Your task to perform on an android device: check android version Image 0: 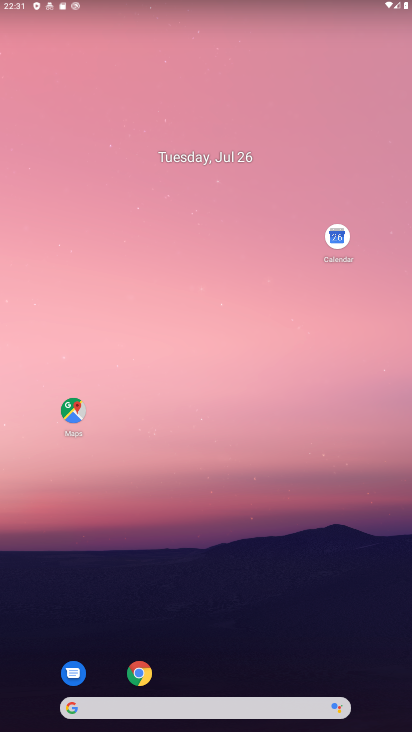
Step 0: drag from (208, 511) to (260, 156)
Your task to perform on an android device: check android version Image 1: 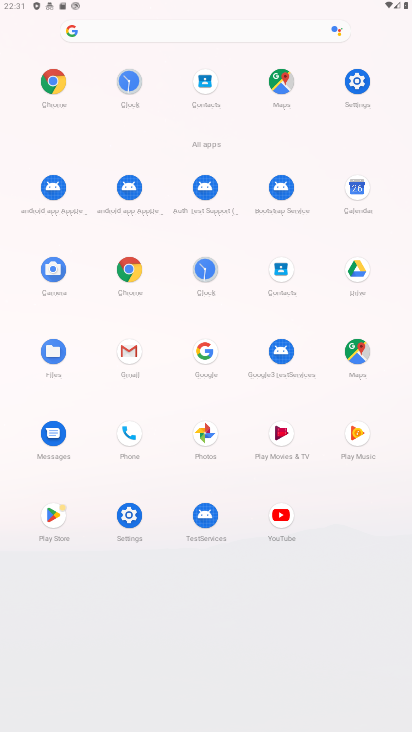
Step 1: drag from (241, 464) to (172, 10)
Your task to perform on an android device: check android version Image 2: 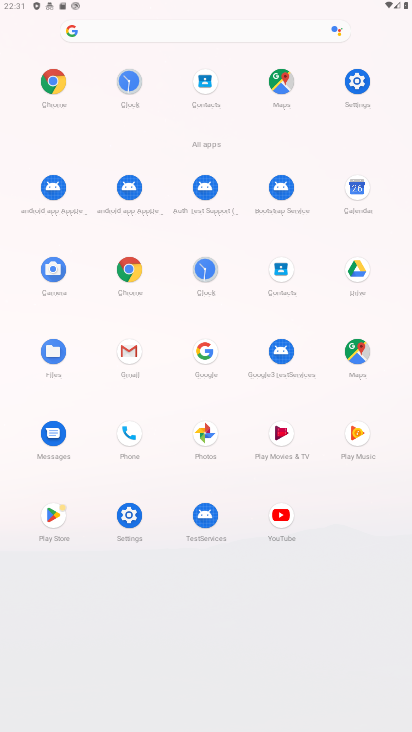
Step 2: drag from (219, 153) to (181, 9)
Your task to perform on an android device: check android version Image 3: 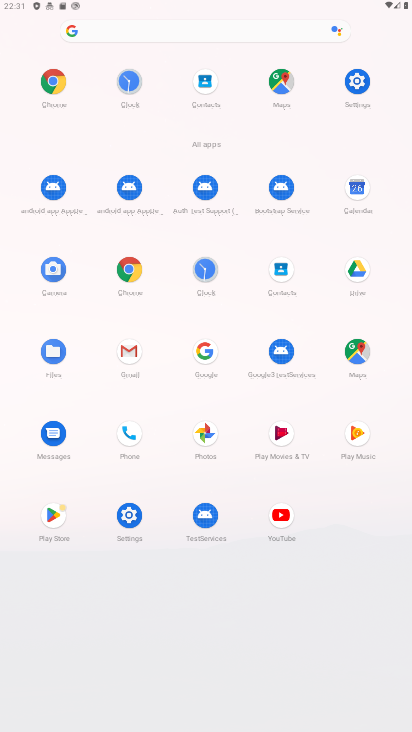
Step 3: click (357, 74)
Your task to perform on an android device: check android version Image 4: 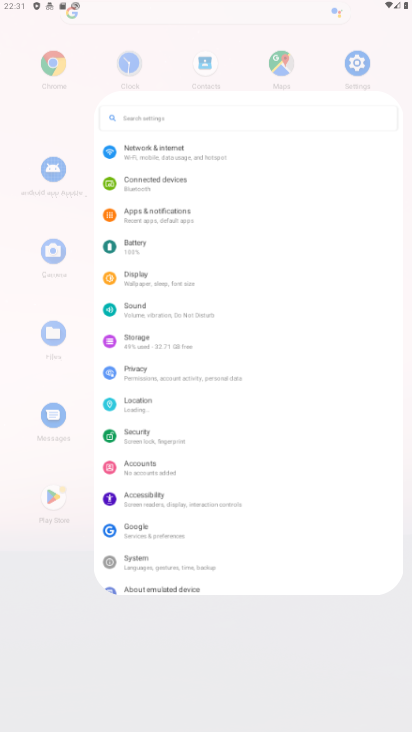
Step 4: click (362, 72)
Your task to perform on an android device: check android version Image 5: 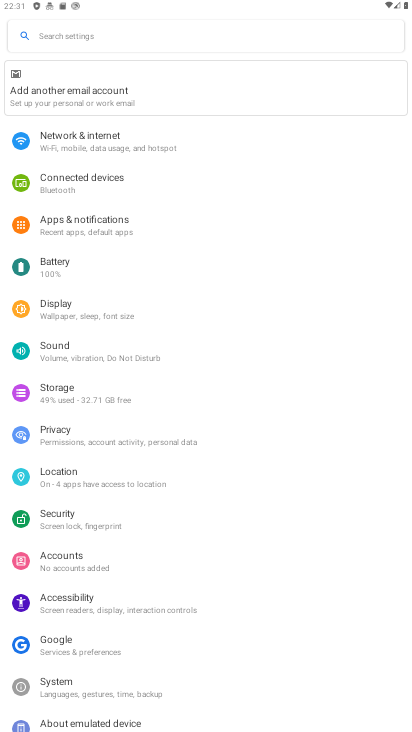
Step 5: drag from (91, 267) to (35, 1)
Your task to perform on an android device: check android version Image 6: 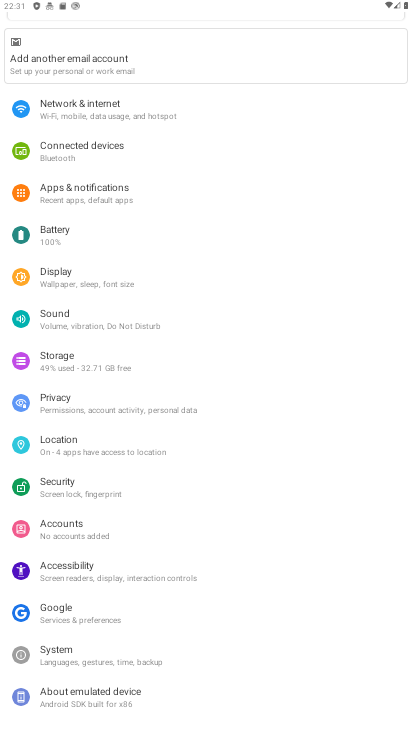
Step 6: drag from (101, 454) to (127, 67)
Your task to perform on an android device: check android version Image 7: 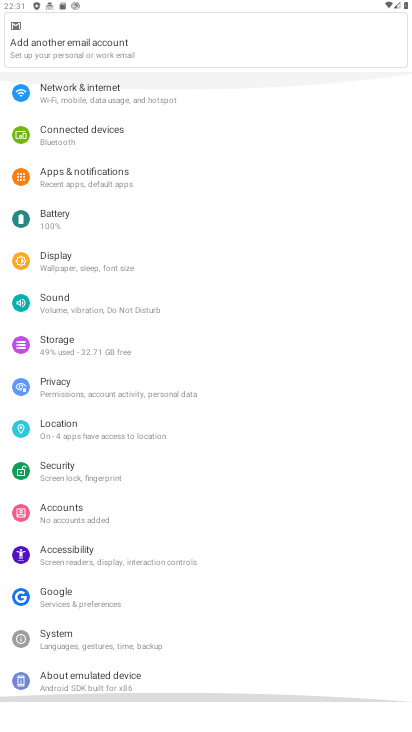
Step 7: drag from (99, 302) to (58, 25)
Your task to perform on an android device: check android version Image 8: 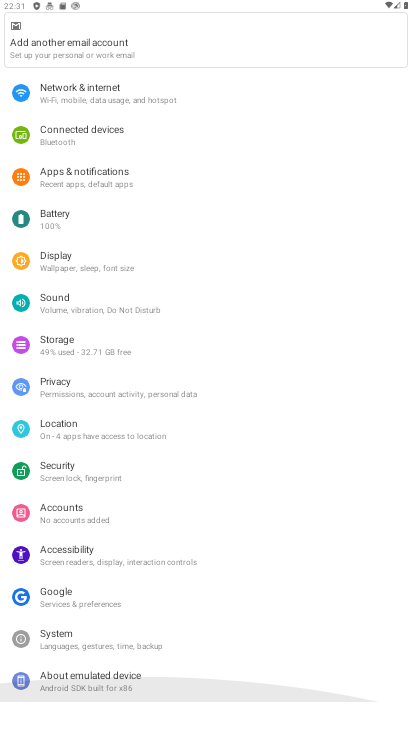
Step 8: drag from (73, 281) to (48, 132)
Your task to perform on an android device: check android version Image 9: 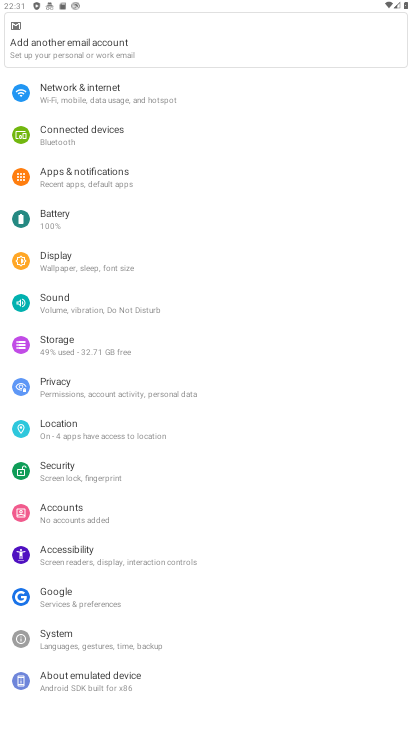
Step 9: click (77, 680)
Your task to perform on an android device: check android version Image 10: 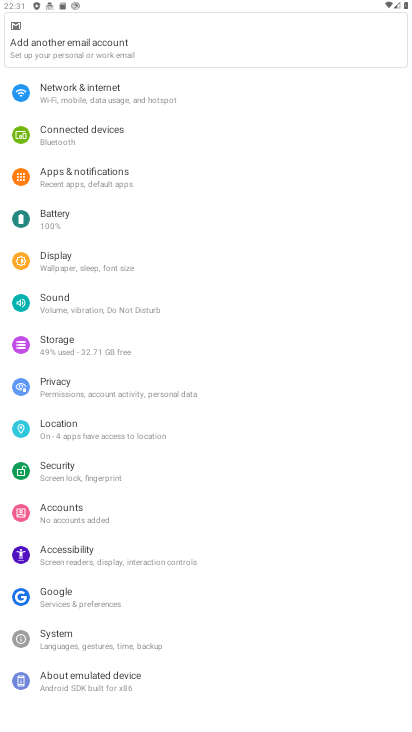
Step 10: drag from (92, 566) to (37, 63)
Your task to perform on an android device: check android version Image 11: 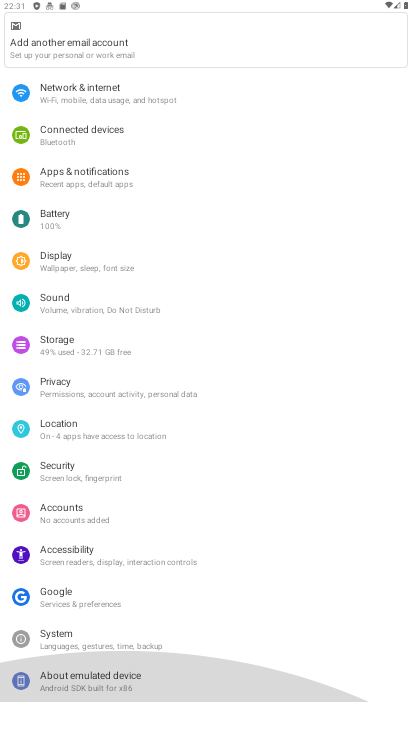
Step 11: drag from (135, 421) to (42, 25)
Your task to perform on an android device: check android version Image 12: 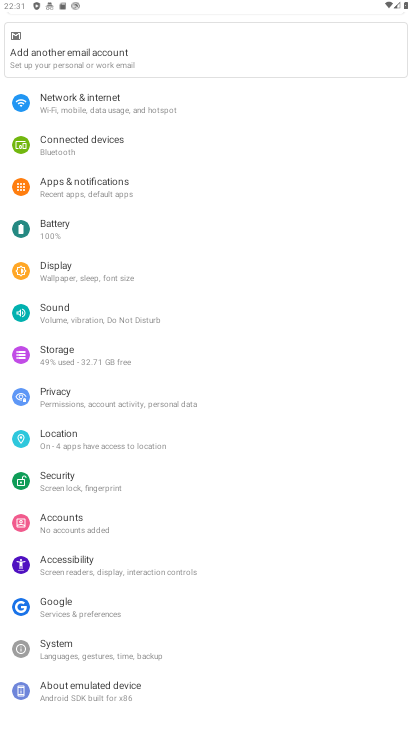
Step 12: click (71, 688)
Your task to perform on an android device: check android version Image 13: 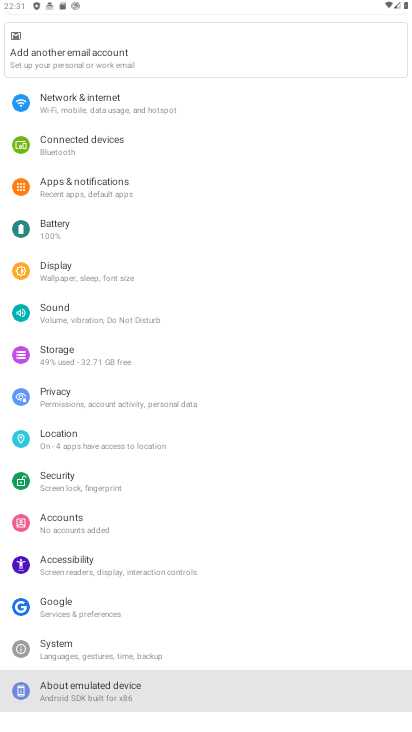
Step 13: click (84, 693)
Your task to perform on an android device: check android version Image 14: 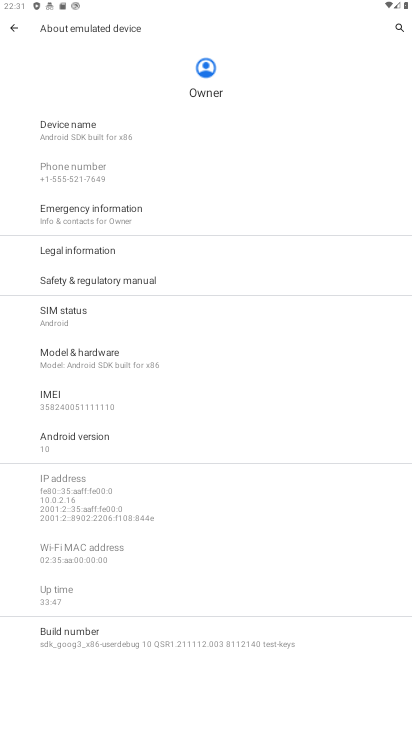
Step 14: click (107, 699)
Your task to perform on an android device: check android version Image 15: 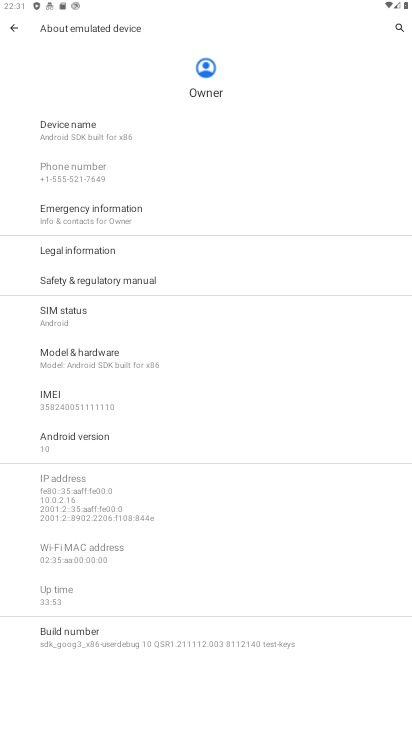
Step 15: drag from (86, 390) to (111, 539)
Your task to perform on an android device: check android version Image 16: 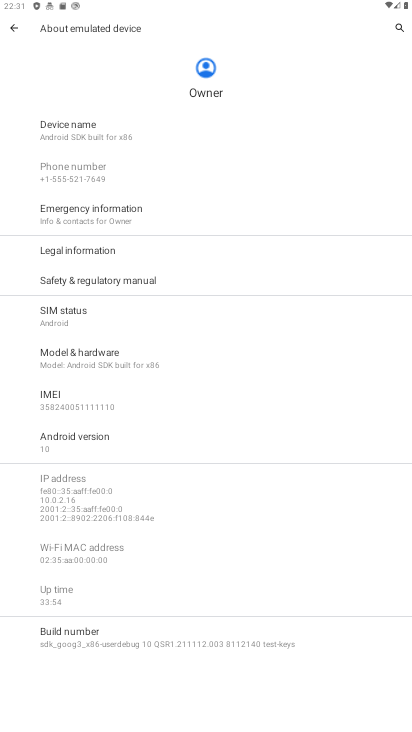
Step 16: click (71, 601)
Your task to perform on an android device: check android version Image 17: 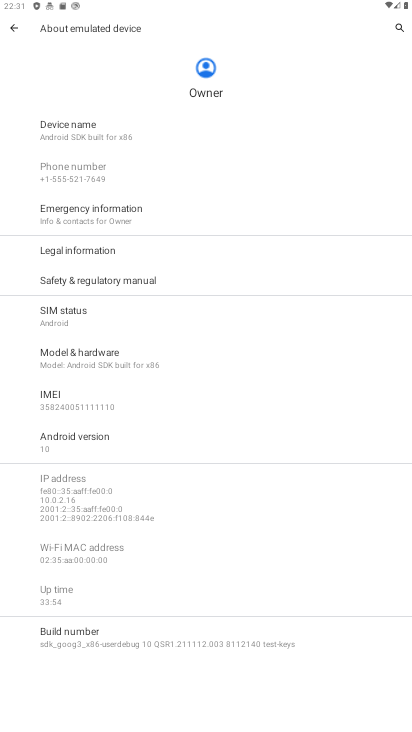
Step 17: drag from (66, 244) to (90, 540)
Your task to perform on an android device: check android version Image 18: 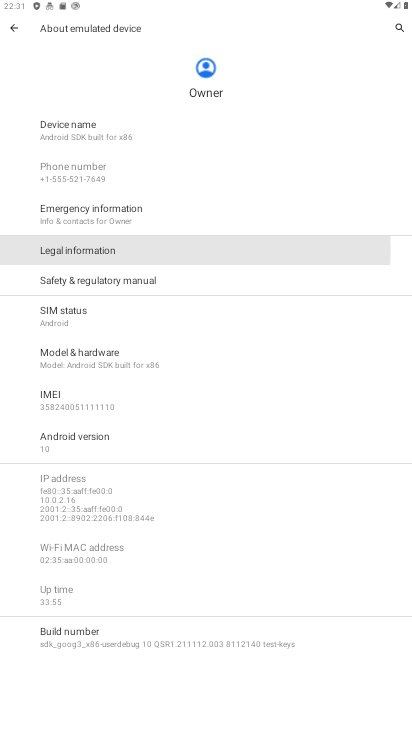
Step 18: click (135, 409)
Your task to perform on an android device: check android version Image 19: 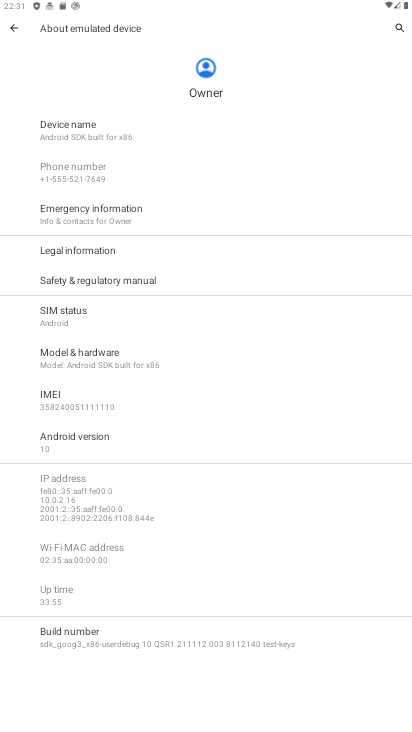
Step 19: drag from (107, 105) to (88, 537)
Your task to perform on an android device: check android version Image 20: 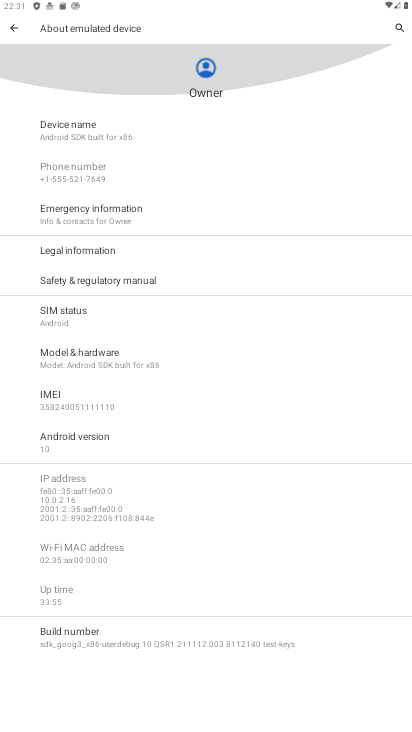
Step 20: click (54, 509)
Your task to perform on an android device: check android version Image 21: 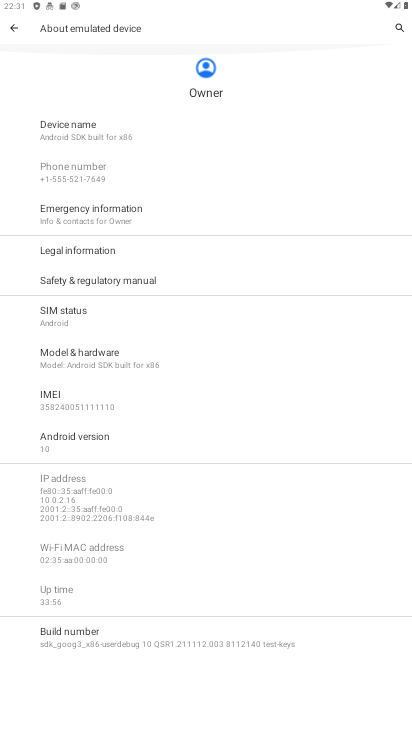
Step 21: click (87, 496)
Your task to perform on an android device: check android version Image 22: 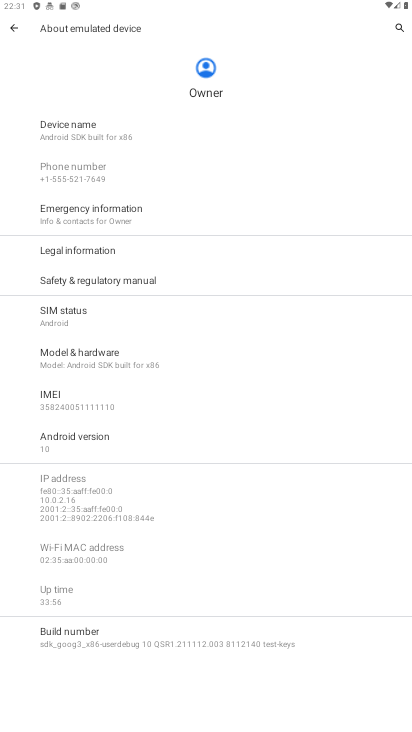
Step 22: task complete